Your task to perform on an android device: Open settings on Google Maps Image 0: 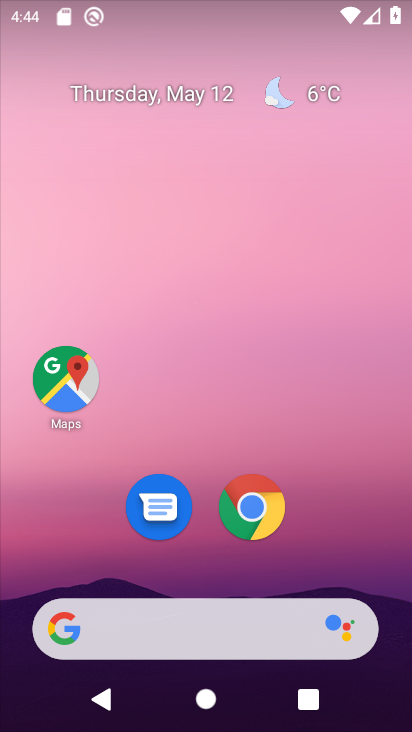
Step 0: click (67, 405)
Your task to perform on an android device: Open settings on Google Maps Image 1: 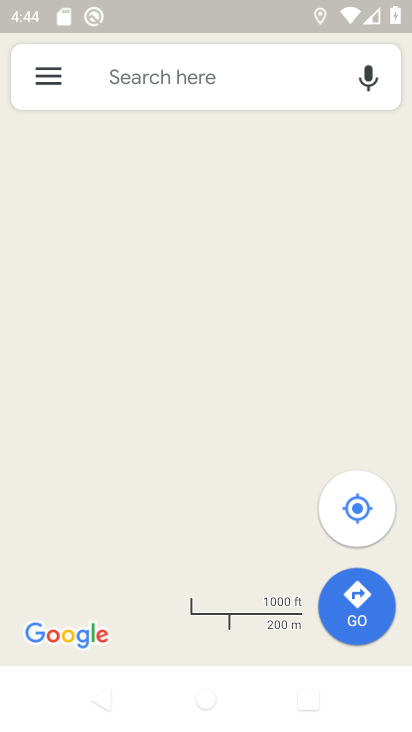
Step 1: click (44, 80)
Your task to perform on an android device: Open settings on Google Maps Image 2: 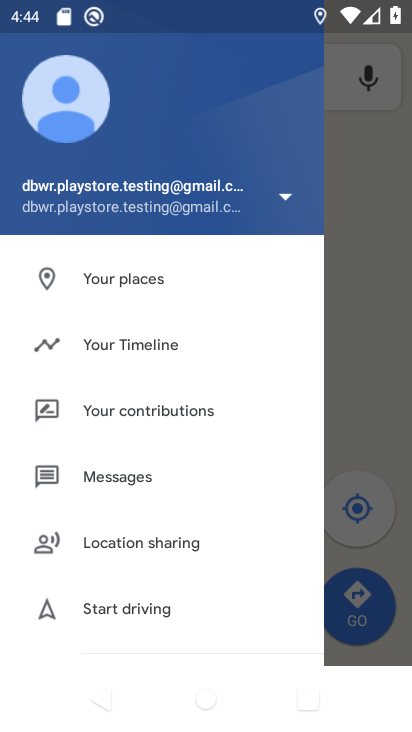
Step 2: drag from (182, 589) to (225, 290)
Your task to perform on an android device: Open settings on Google Maps Image 3: 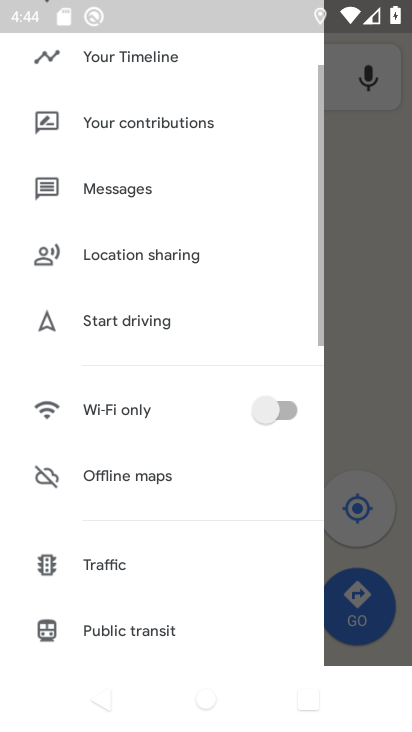
Step 3: drag from (183, 531) to (200, 193)
Your task to perform on an android device: Open settings on Google Maps Image 4: 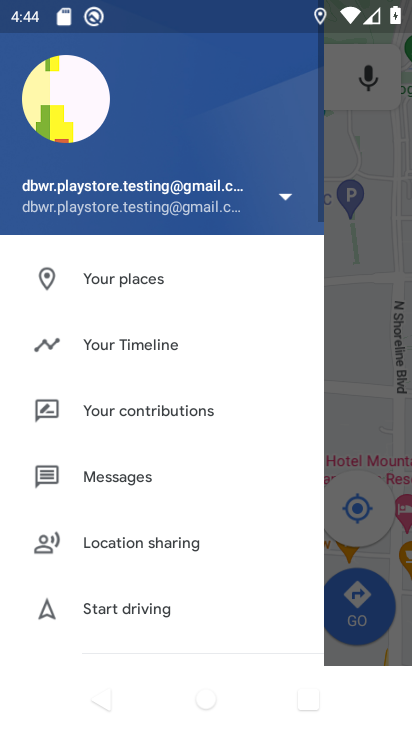
Step 4: drag from (148, 554) to (148, 257)
Your task to perform on an android device: Open settings on Google Maps Image 5: 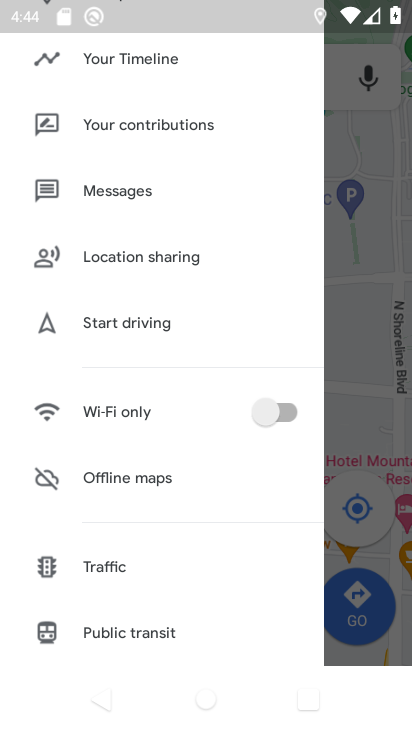
Step 5: drag from (153, 587) to (159, 287)
Your task to perform on an android device: Open settings on Google Maps Image 6: 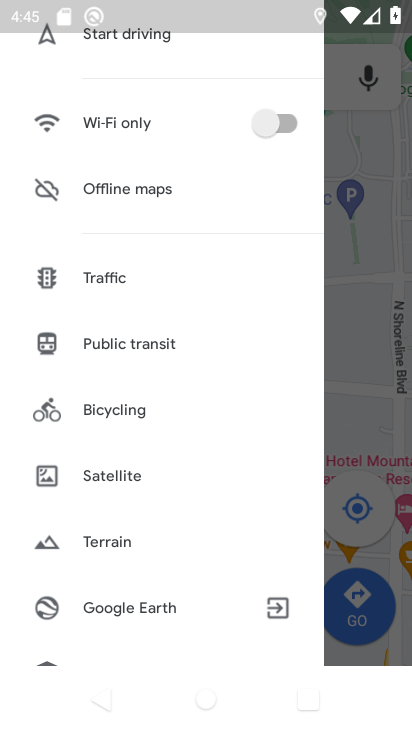
Step 6: drag from (174, 583) to (191, 271)
Your task to perform on an android device: Open settings on Google Maps Image 7: 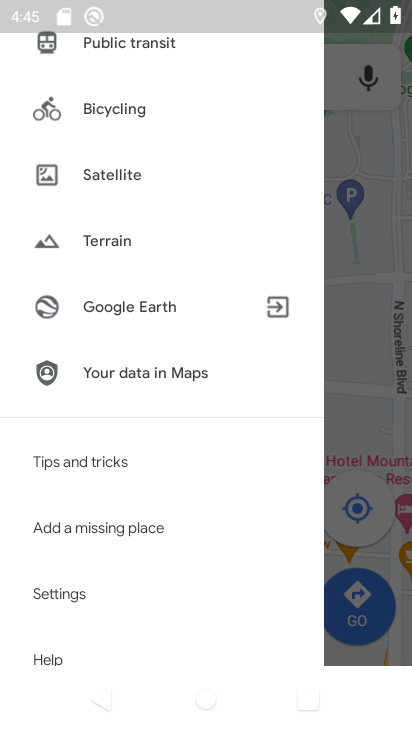
Step 7: click (83, 605)
Your task to perform on an android device: Open settings on Google Maps Image 8: 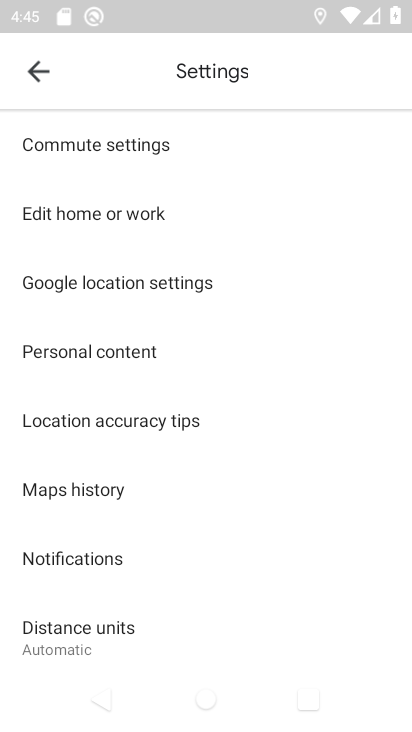
Step 8: task complete